Your task to perform on an android device: set default search engine in the chrome app Image 0: 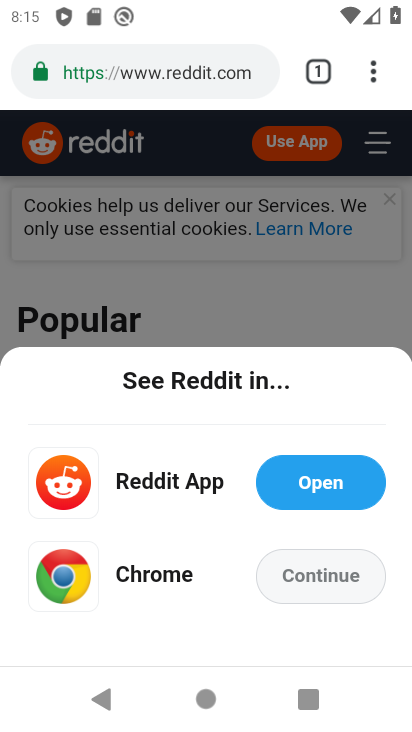
Step 0: press home button
Your task to perform on an android device: set default search engine in the chrome app Image 1: 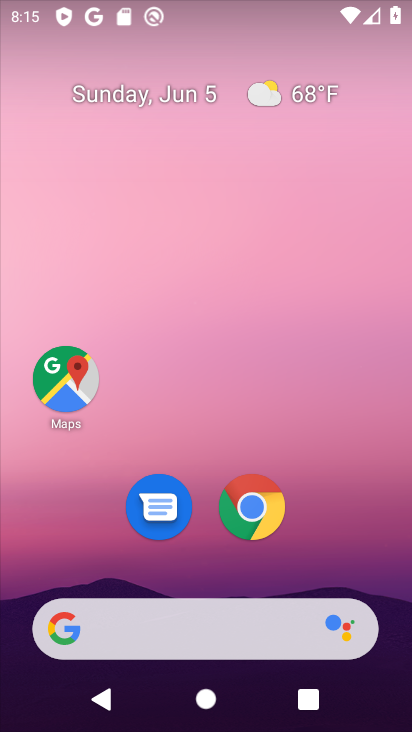
Step 1: click (257, 516)
Your task to perform on an android device: set default search engine in the chrome app Image 2: 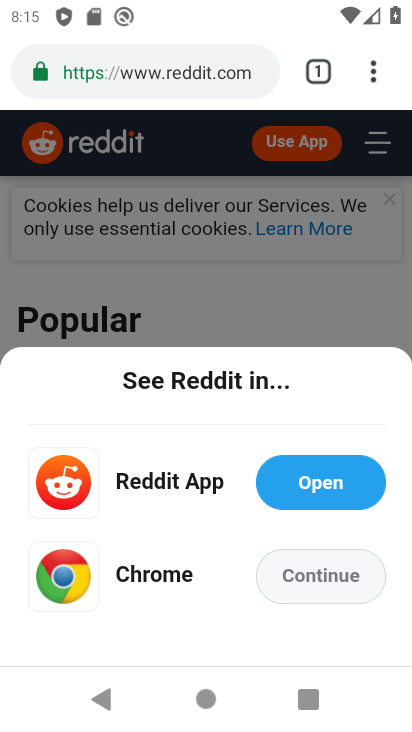
Step 2: click (372, 81)
Your task to perform on an android device: set default search engine in the chrome app Image 3: 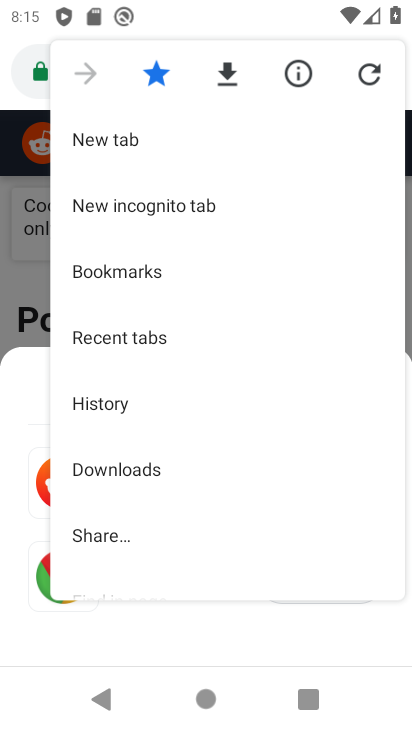
Step 3: drag from (155, 544) to (168, 260)
Your task to perform on an android device: set default search engine in the chrome app Image 4: 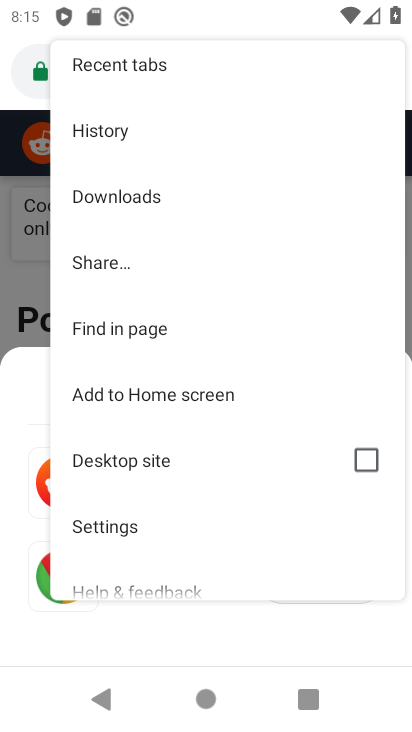
Step 4: click (116, 527)
Your task to perform on an android device: set default search engine in the chrome app Image 5: 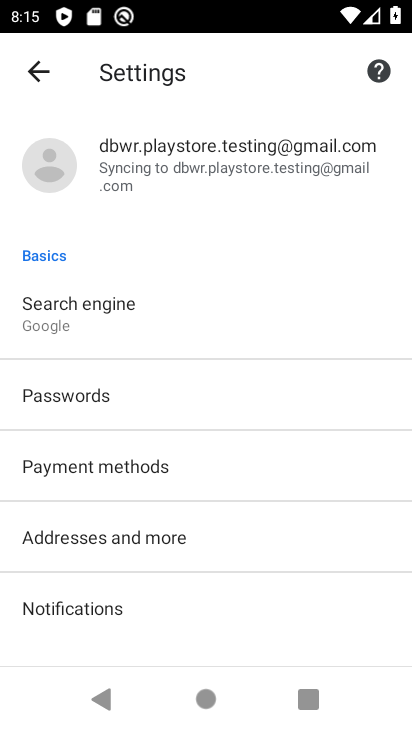
Step 5: click (62, 321)
Your task to perform on an android device: set default search engine in the chrome app Image 6: 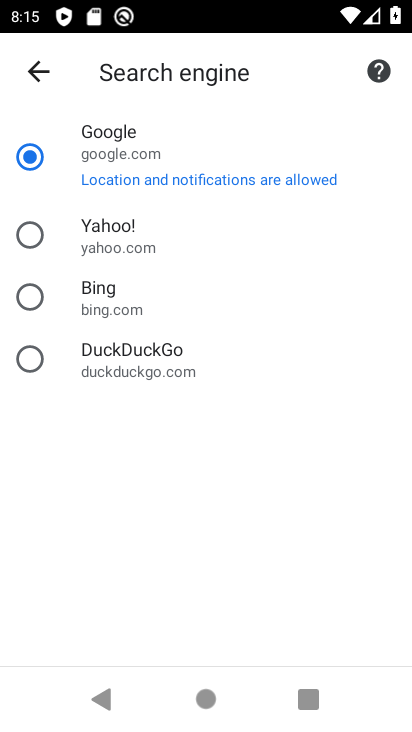
Step 6: click (36, 231)
Your task to perform on an android device: set default search engine in the chrome app Image 7: 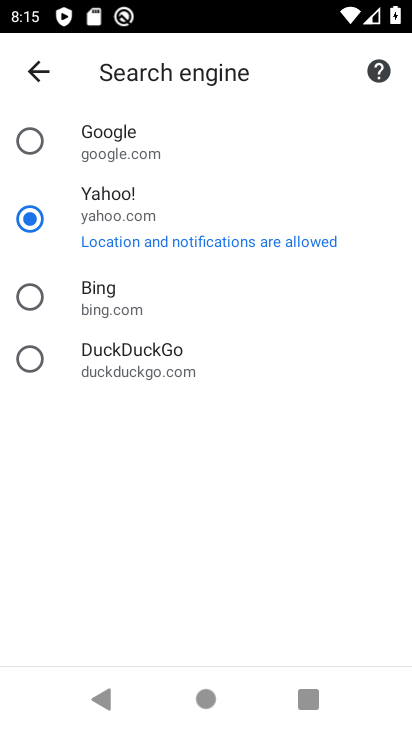
Step 7: task complete